Your task to perform on an android device: Open calendar and show me the fourth week of next month Image 0: 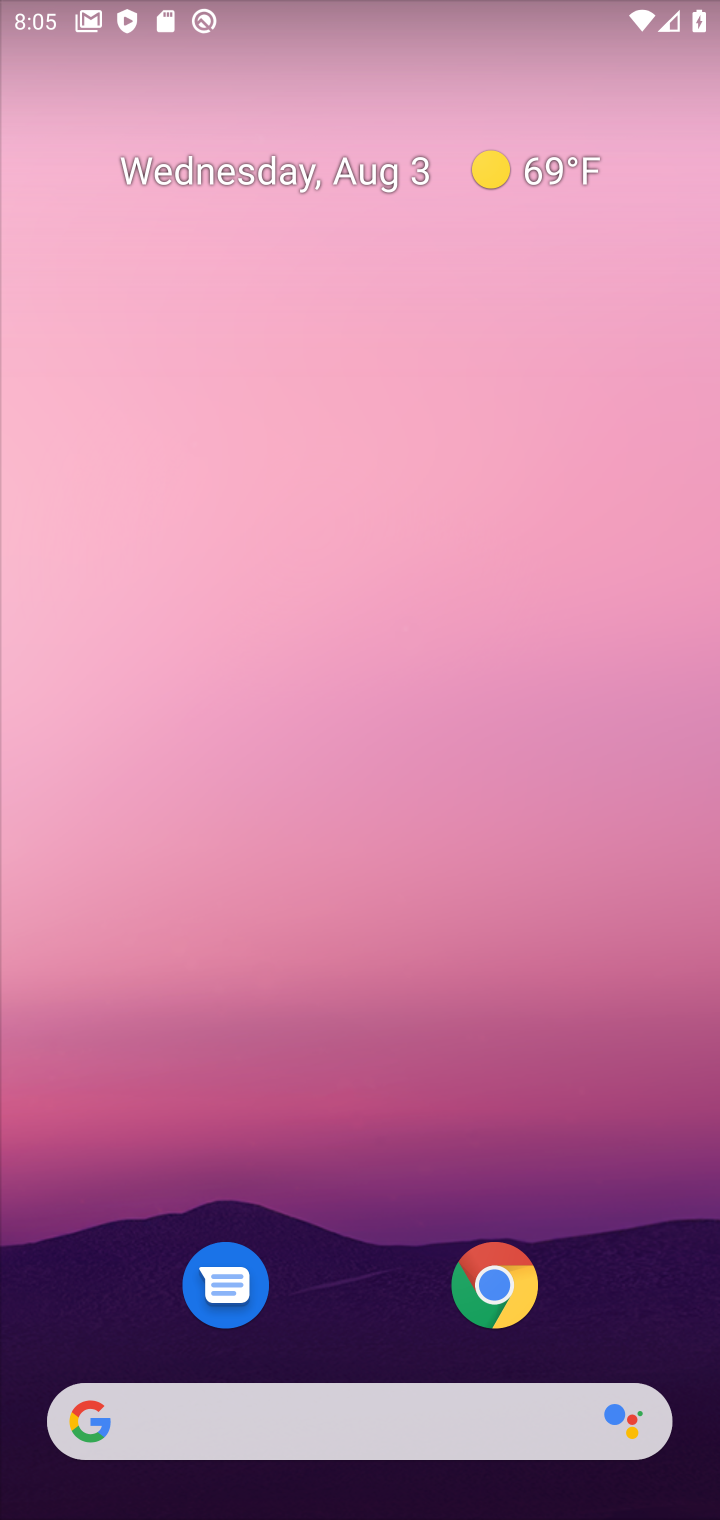
Step 0: drag from (675, 1251) to (537, 31)
Your task to perform on an android device: Open calendar and show me the fourth week of next month Image 1: 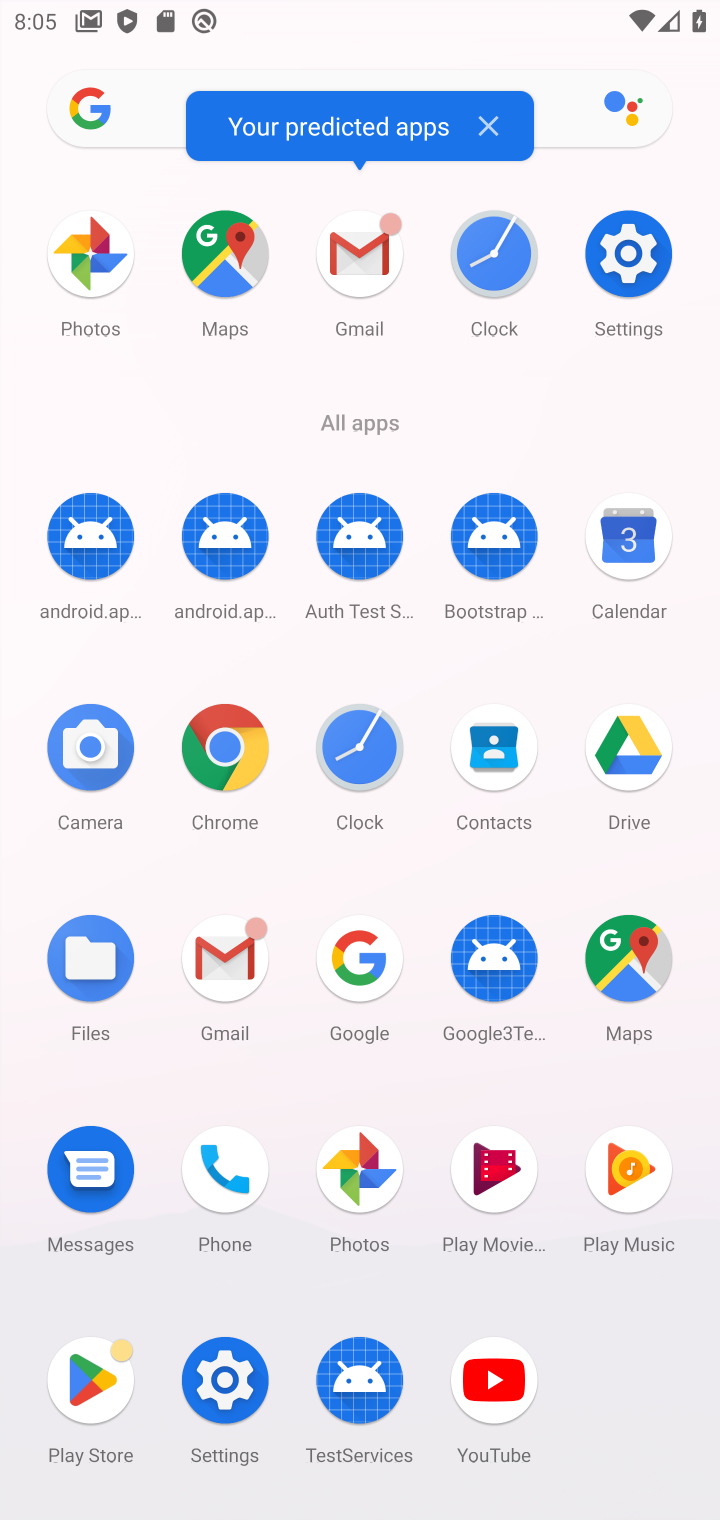
Step 1: click (611, 511)
Your task to perform on an android device: Open calendar and show me the fourth week of next month Image 2: 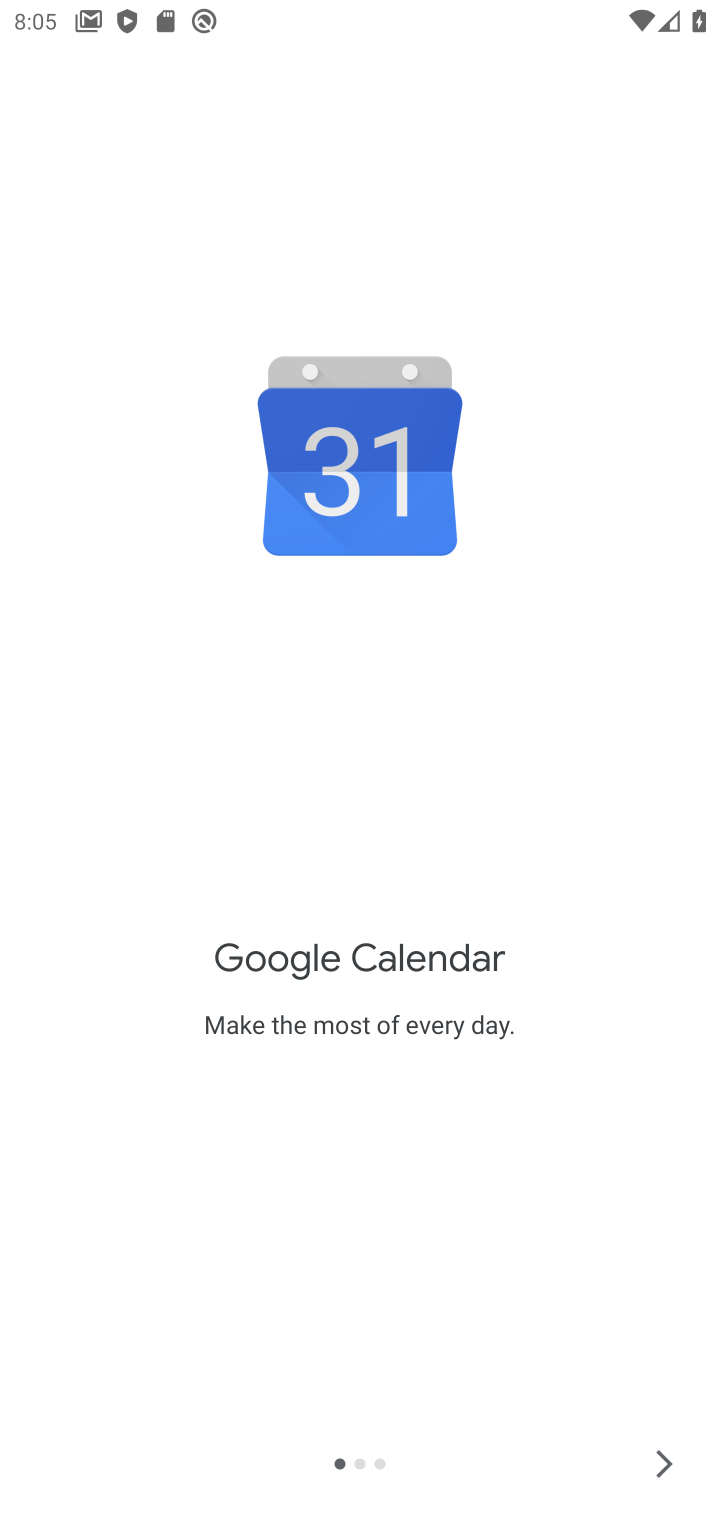
Step 2: click (654, 1458)
Your task to perform on an android device: Open calendar and show me the fourth week of next month Image 3: 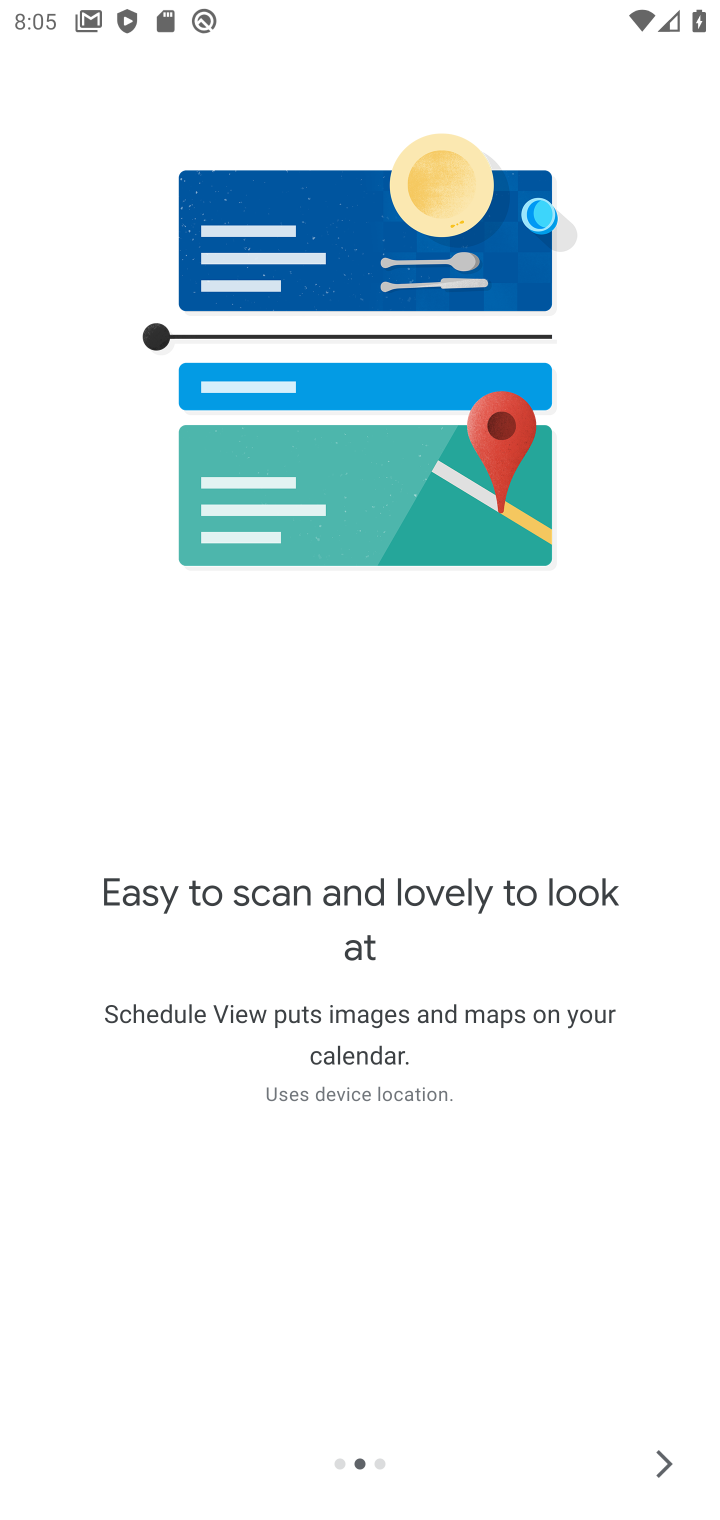
Step 3: click (654, 1458)
Your task to perform on an android device: Open calendar and show me the fourth week of next month Image 4: 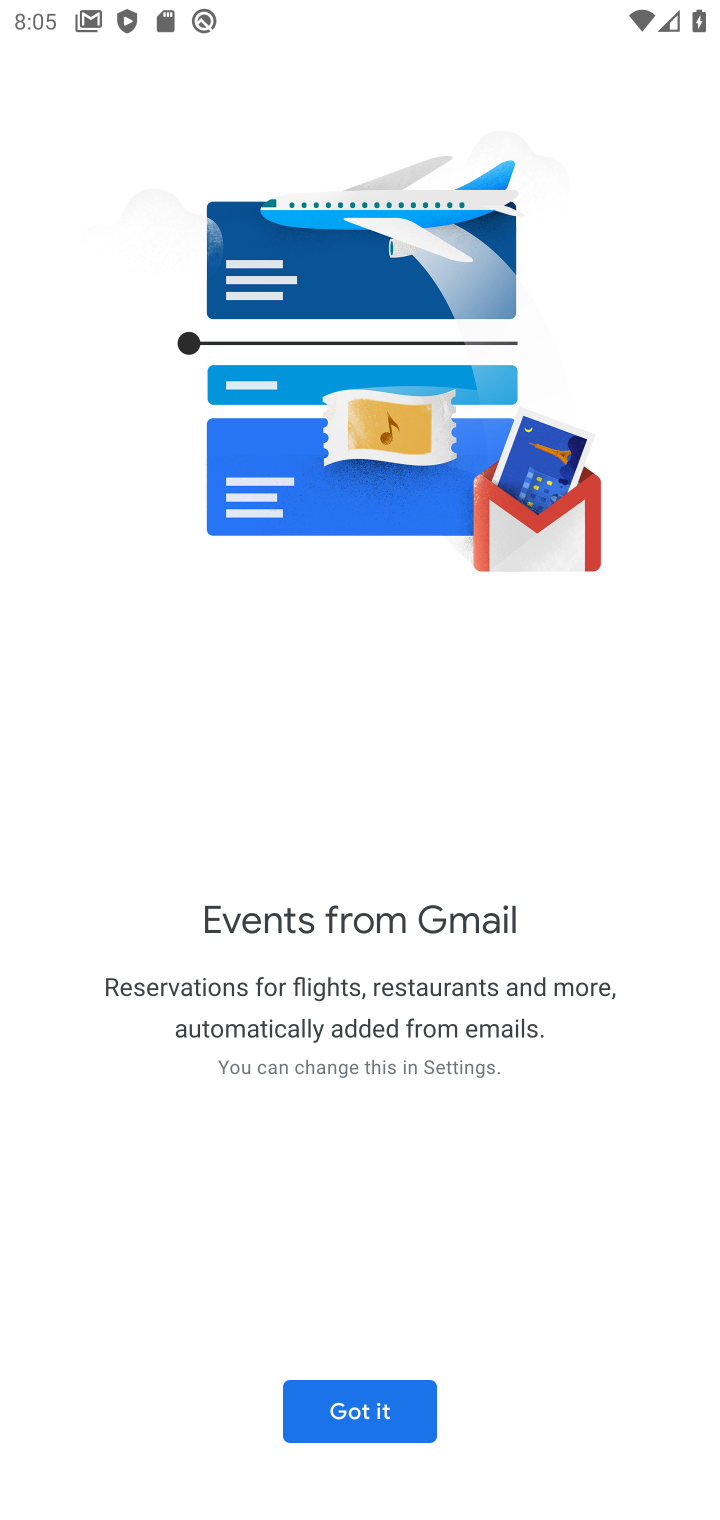
Step 4: click (336, 1407)
Your task to perform on an android device: Open calendar and show me the fourth week of next month Image 5: 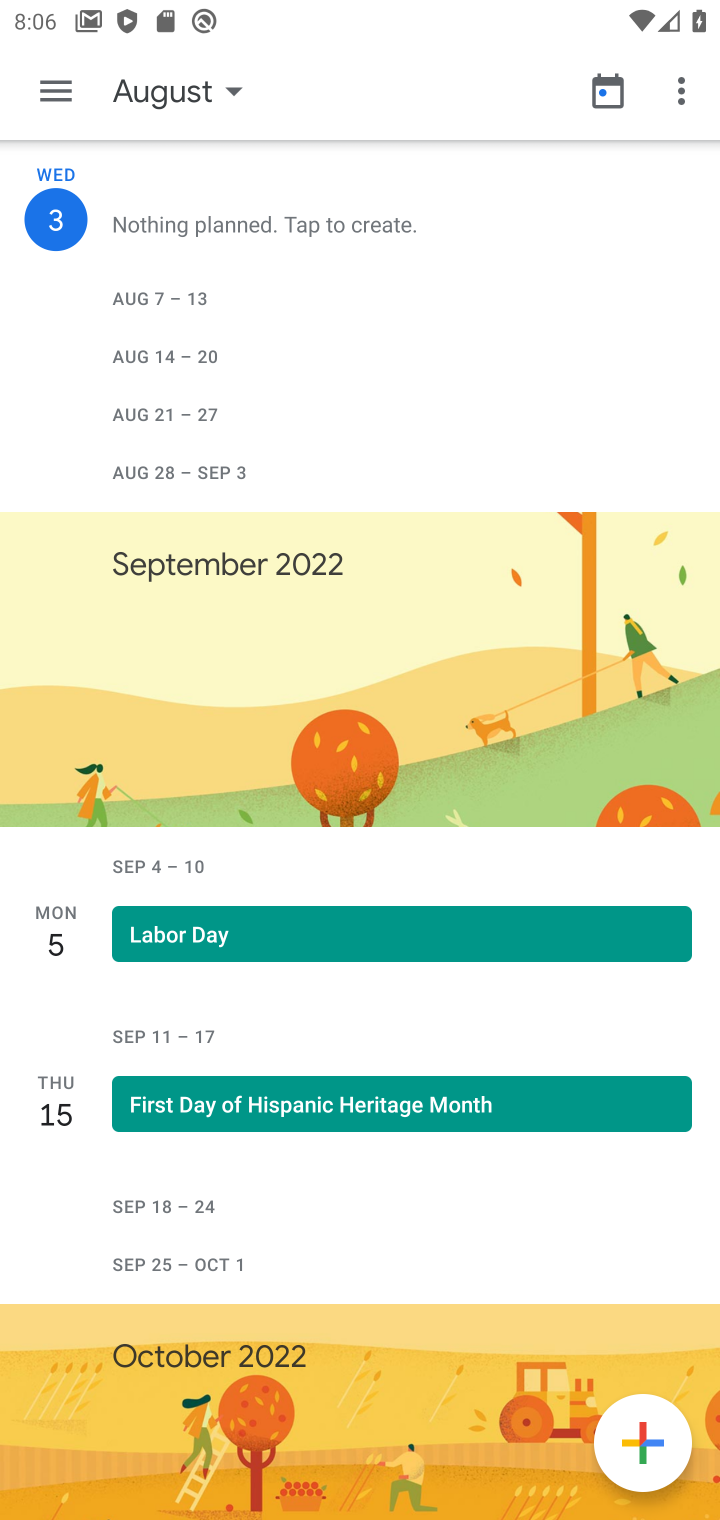
Step 5: click (64, 82)
Your task to perform on an android device: Open calendar and show me the fourth week of next month Image 6: 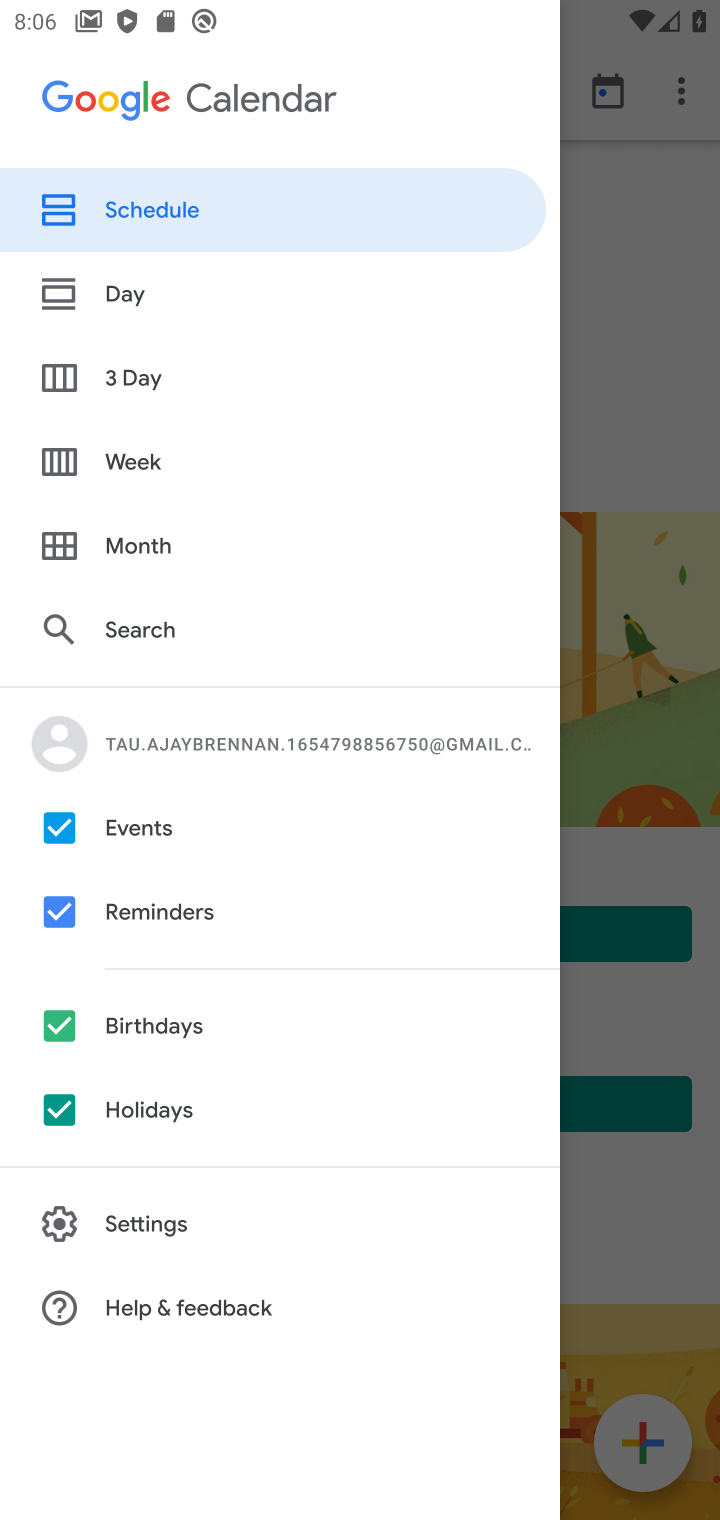
Step 6: click (248, 452)
Your task to perform on an android device: Open calendar and show me the fourth week of next month Image 7: 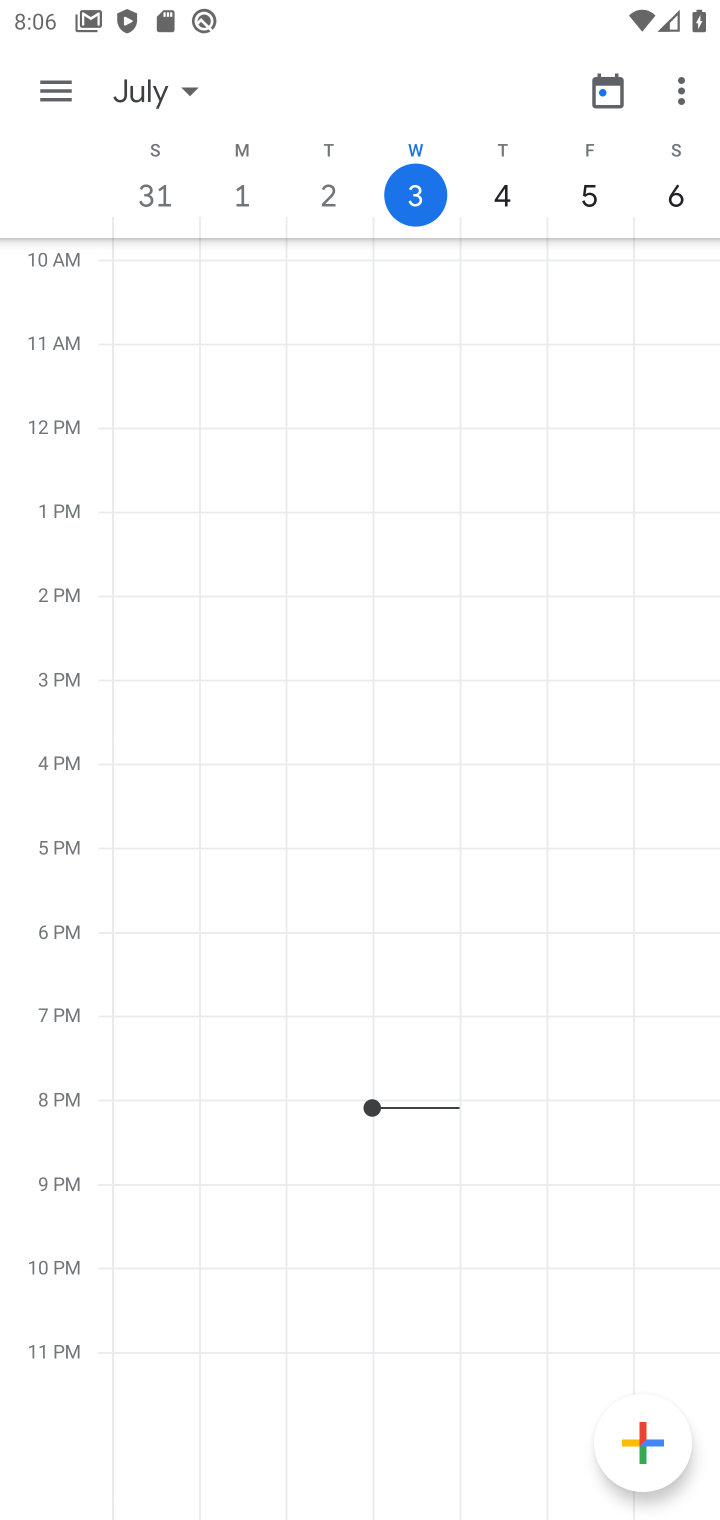
Step 7: click (204, 82)
Your task to perform on an android device: Open calendar and show me the fourth week of next month Image 8: 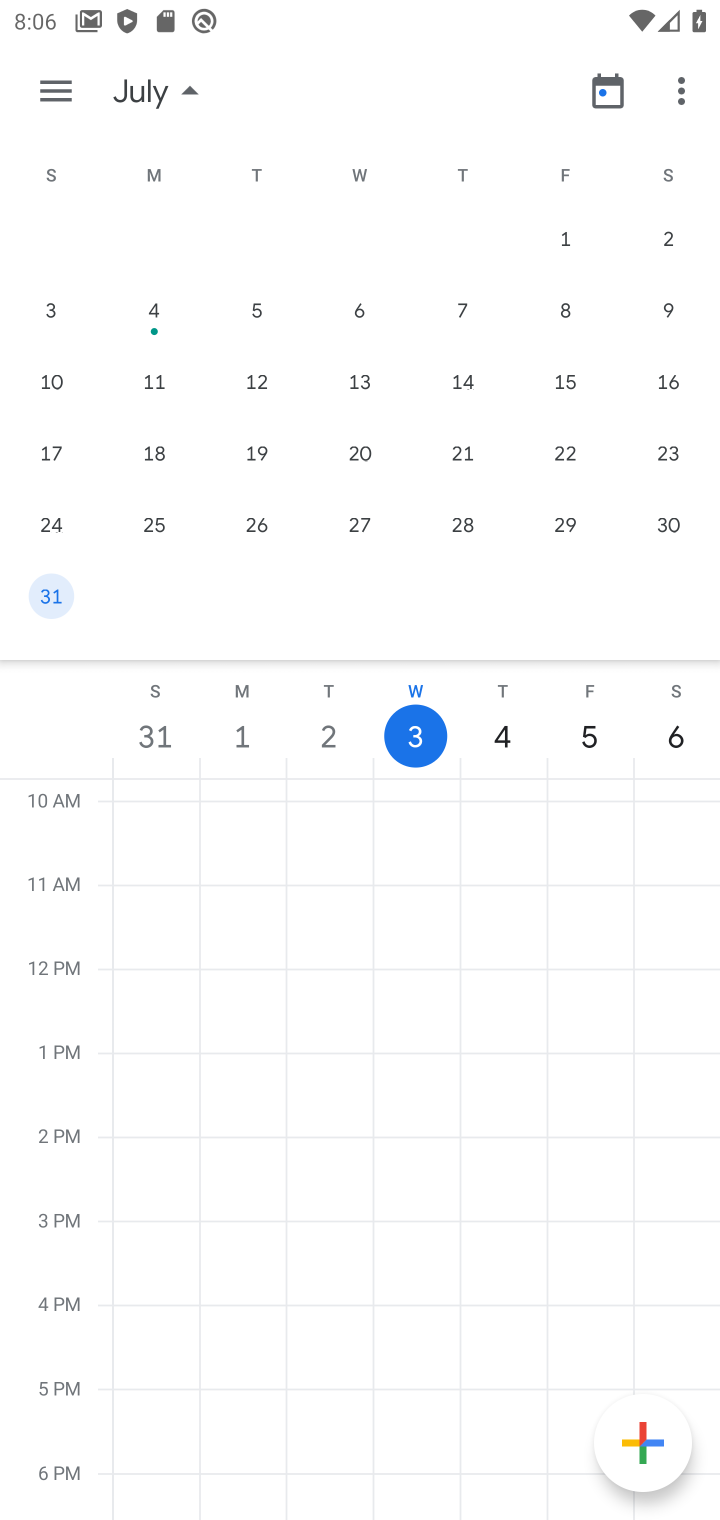
Step 8: drag from (561, 482) to (62, 484)
Your task to perform on an android device: Open calendar and show me the fourth week of next month Image 9: 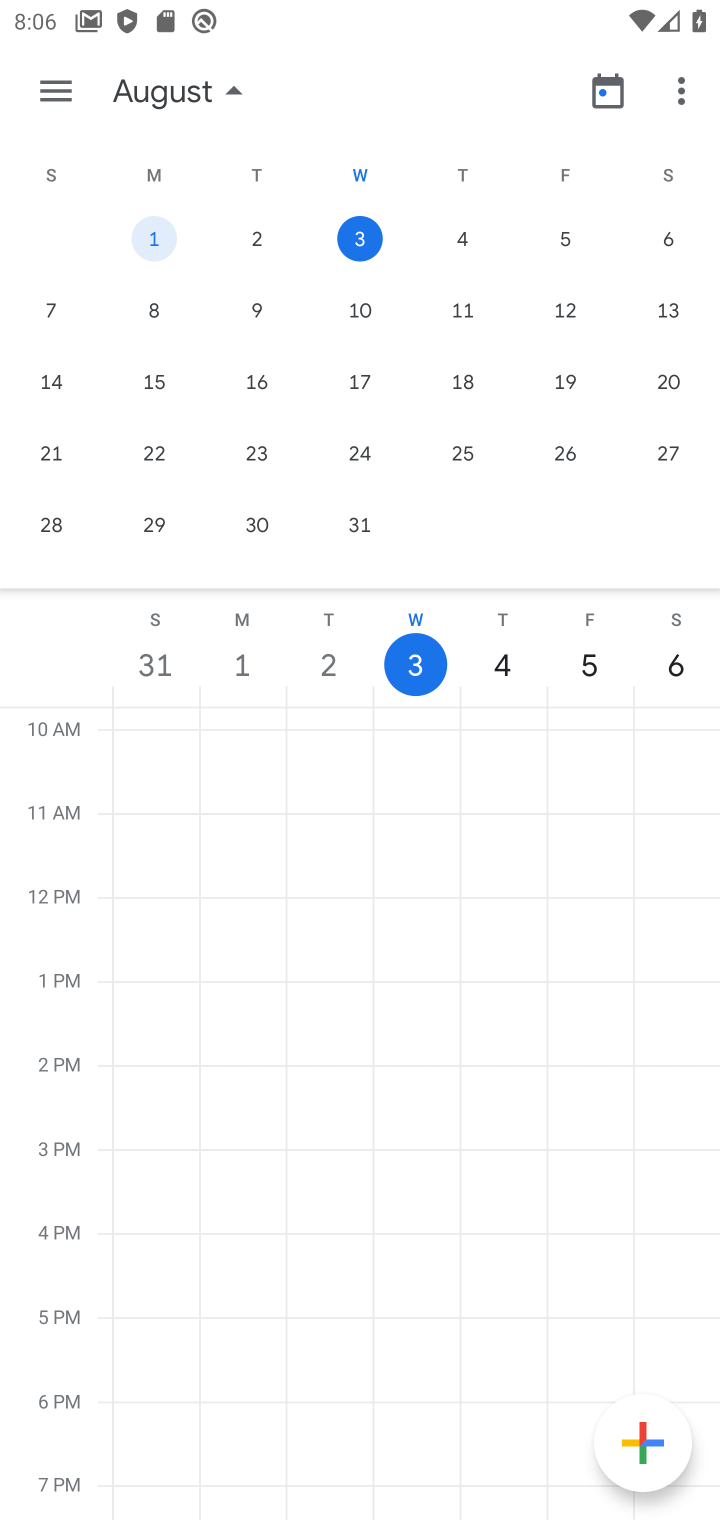
Step 9: drag from (596, 463) to (28, 335)
Your task to perform on an android device: Open calendar and show me the fourth week of next month Image 10: 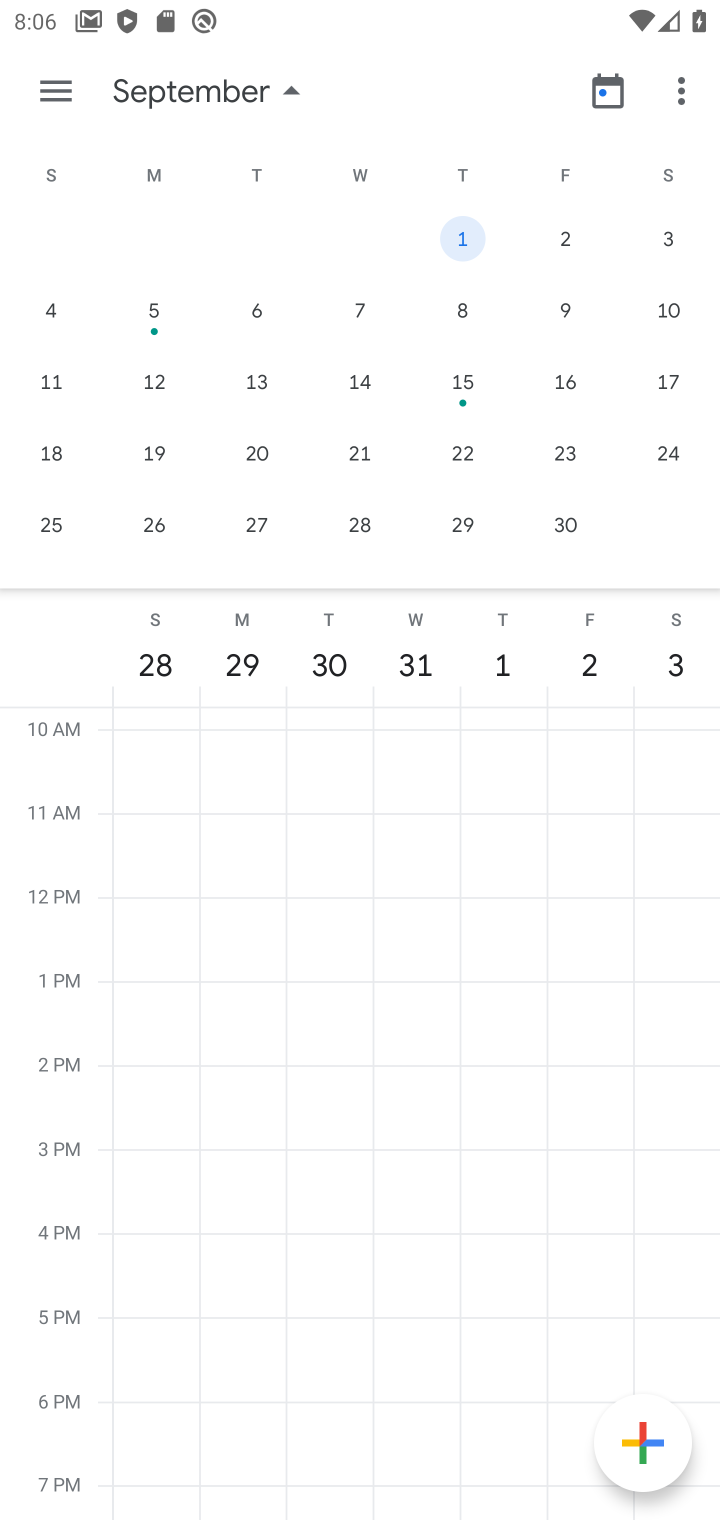
Step 10: click (371, 519)
Your task to perform on an android device: Open calendar and show me the fourth week of next month Image 11: 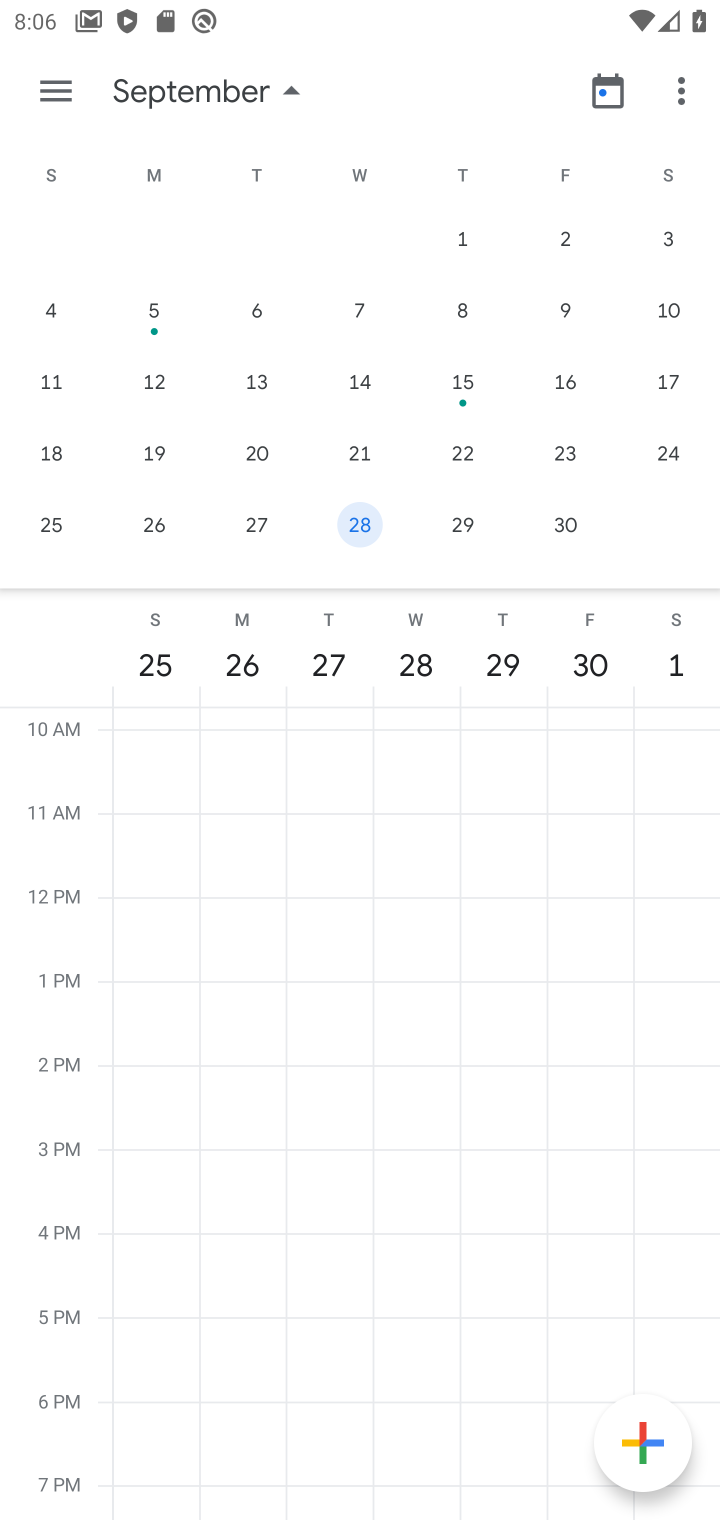
Step 11: task complete